Your task to perform on an android device: turn notification dots off Image 0: 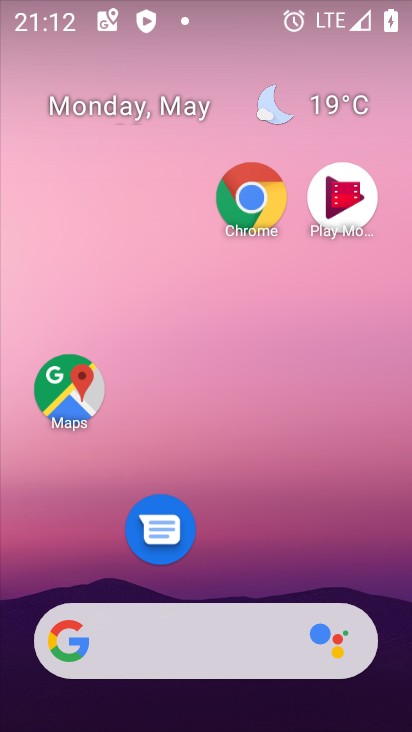
Step 0: drag from (249, 573) to (232, 17)
Your task to perform on an android device: turn notification dots off Image 1: 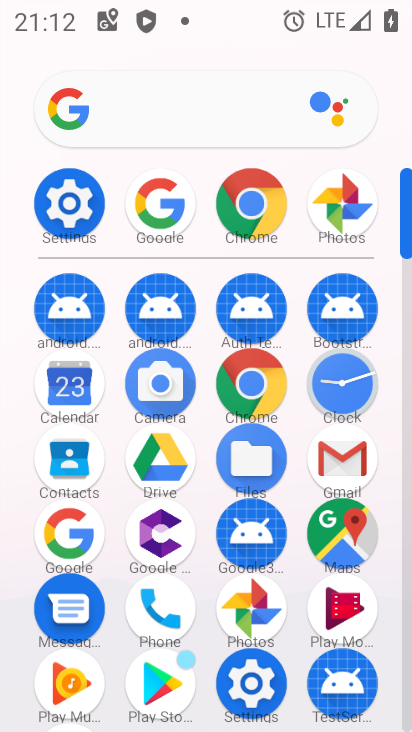
Step 1: click (71, 209)
Your task to perform on an android device: turn notification dots off Image 2: 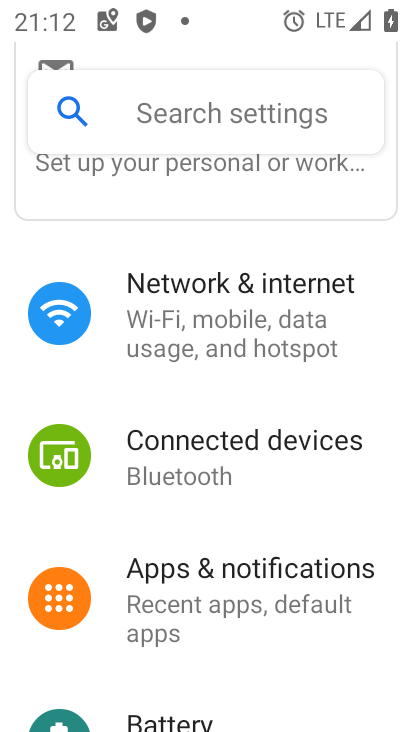
Step 2: click (190, 594)
Your task to perform on an android device: turn notification dots off Image 3: 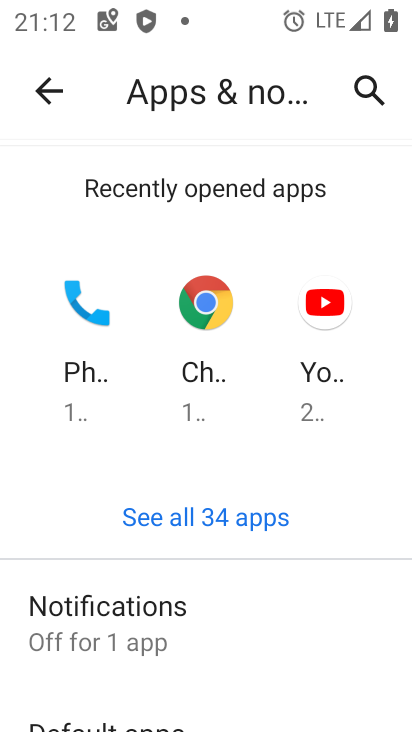
Step 3: click (143, 623)
Your task to perform on an android device: turn notification dots off Image 4: 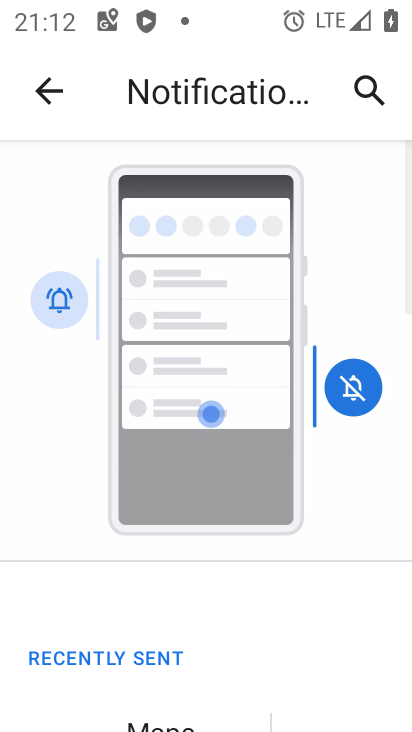
Step 4: drag from (179, 672) to (250, 285)
Your task to perform on an android device: turn notification dots off Image 5: 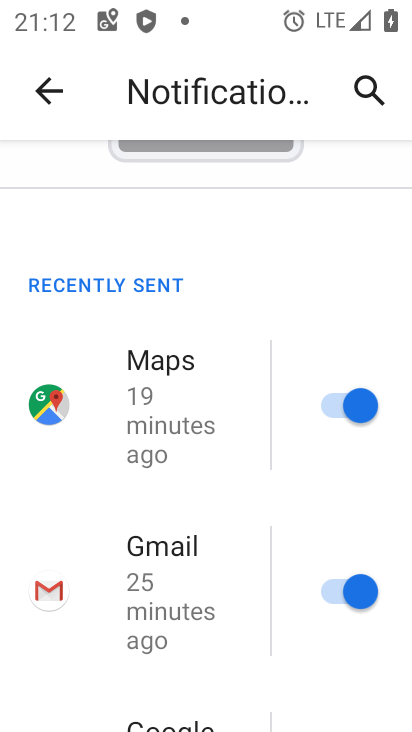
Step 5: drag from (212, 623) to (227, 254)
Your task to perform on an android device: turn notification dots off Image 6: 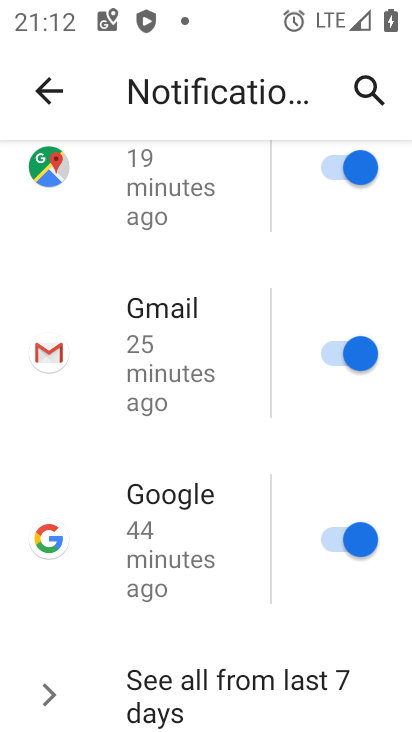
Step 6: drag from (208, 607) to (228, 265)
Your task to perform on an android device: turn notification dots off Image 7: 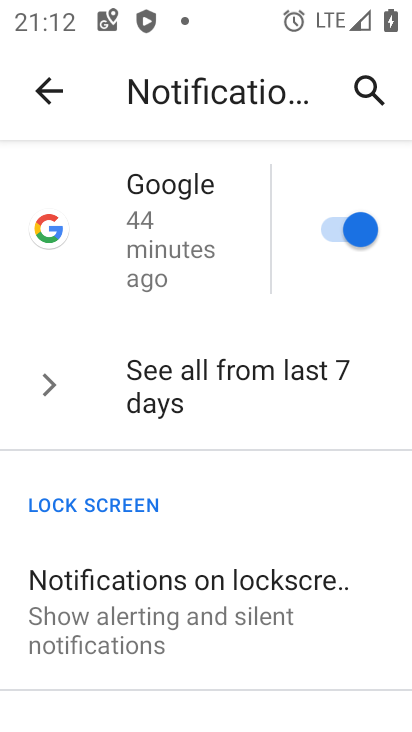
Step 7: drag from (176, 596) to (204, 342)
Your task to perform on an android device: turn notification dots off Image 8: 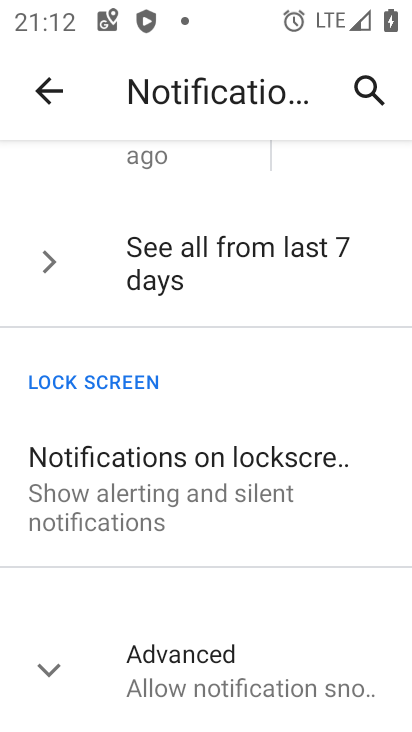
Step 8: click (169, 665)
Your task to perform on an android device: turn notification dots off Image 9: 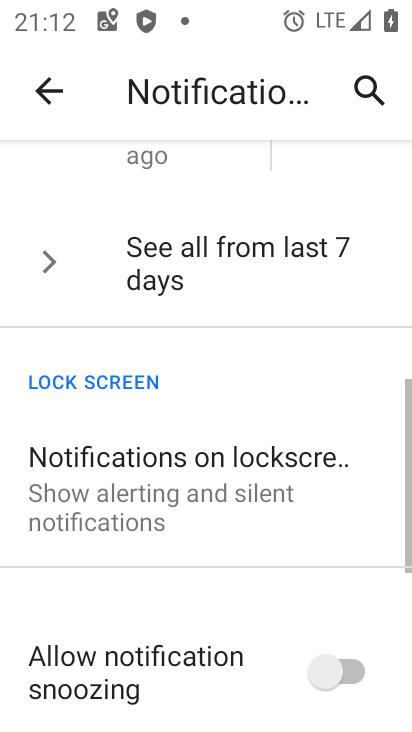
Step 9: drag from (180, 649) to (190, 382)
Your task to perform on an android device: turn notification dots off Image 10: 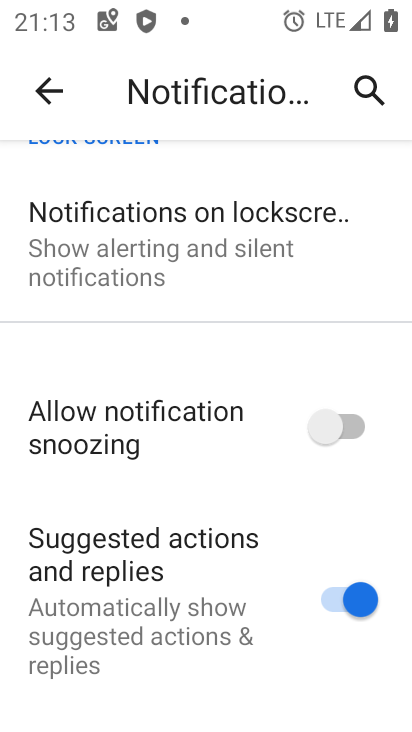
Step 10: drag from (222, 610) to (229, 389)
Your task to perform on an android device: turn notification dots off Image 11: 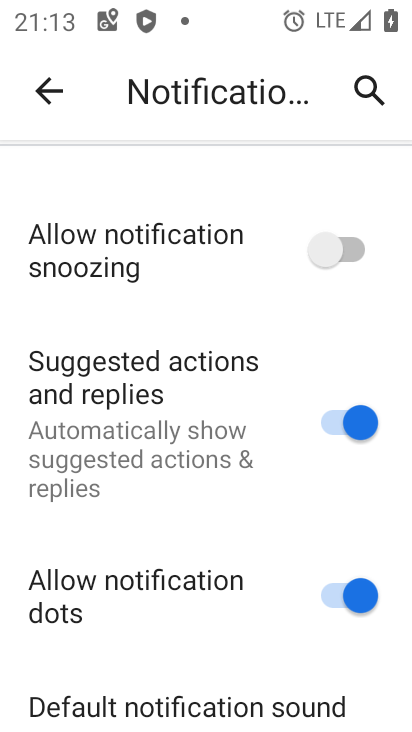
Step 11: click (357, 597)
Your task to perform on an android device: turn notification dots off Image 12: 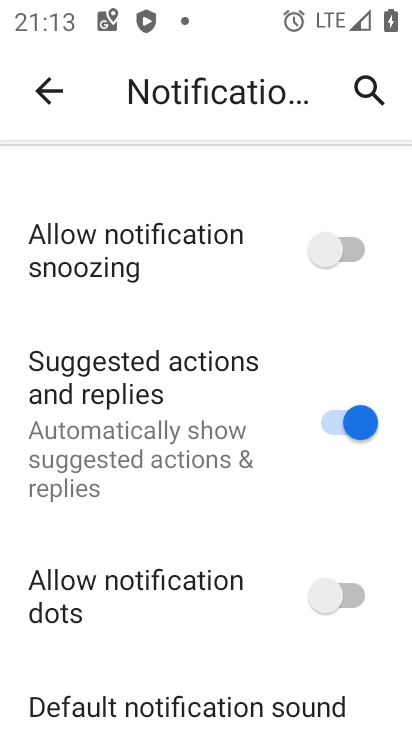
Step 12: task complete